Your task to perform on an android device: See recent photos Image 0: 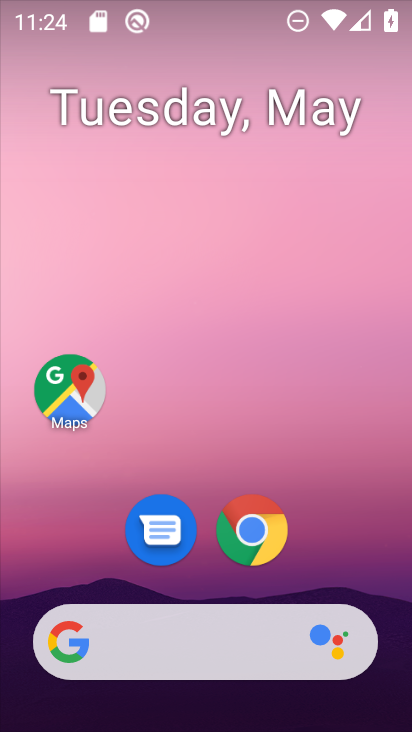
Step 0: drag from (366, 527) to (204, 39)
Your task to perform on an android device: See recent photos Image 1: 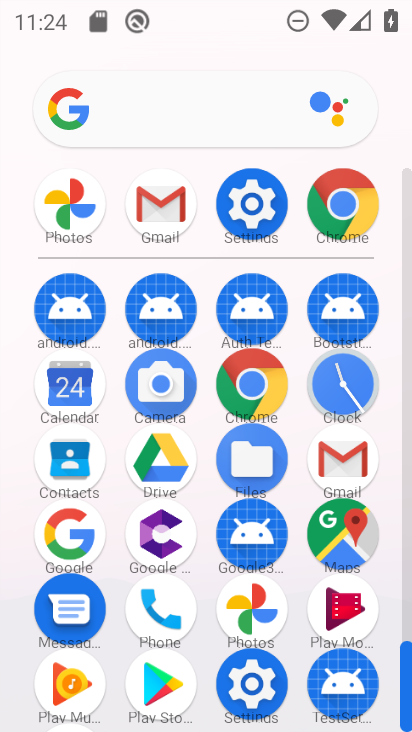
Step 1: click (79, 204)
Your task to perform on an android device: See recent photos Image 2: 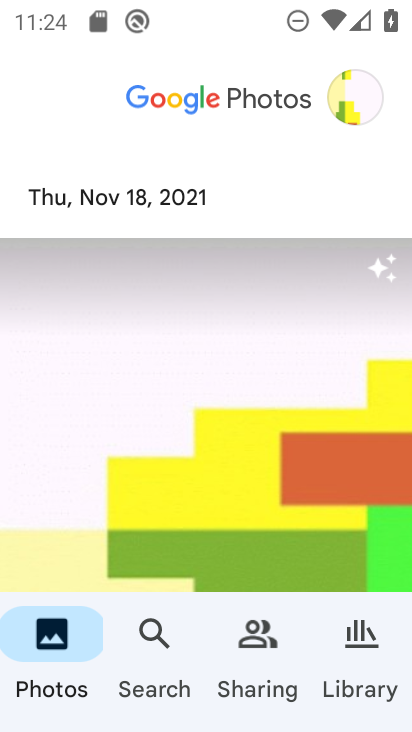
Step 2: task complete